Your task to perform on an android device: make emails show in primary in the gmail app Image 0: 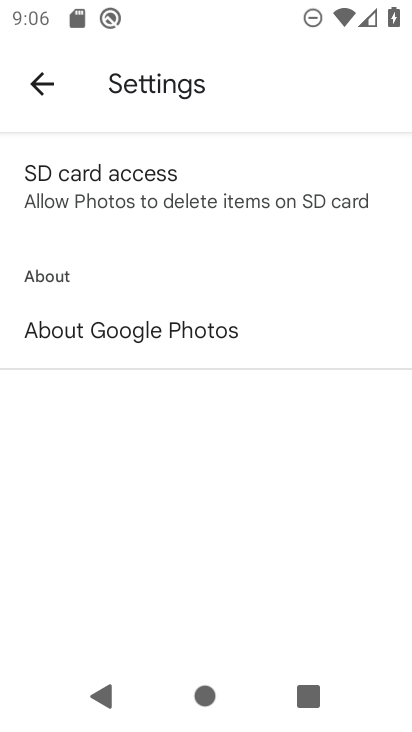
Step 0: press home button
Your task to perform on an android device: make emails show in primary in the gmail app Image 1: 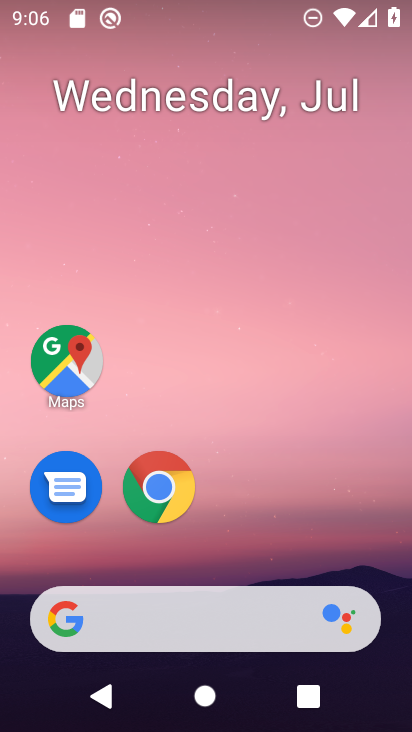
Step 1: drag from (375, 550) to (370, 117)
Your task to perform on an android device: make emails show in primary in the gmail app Image 2: 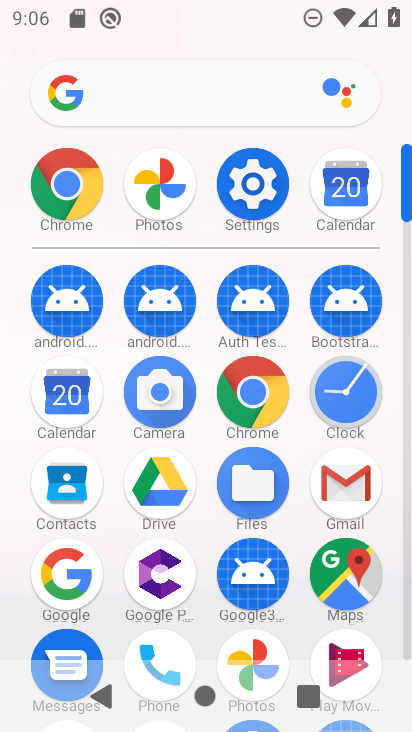
Step 2: click (345, 491)
Your task to perform on an android device: make emails show in primary in the gmail app Image 3: 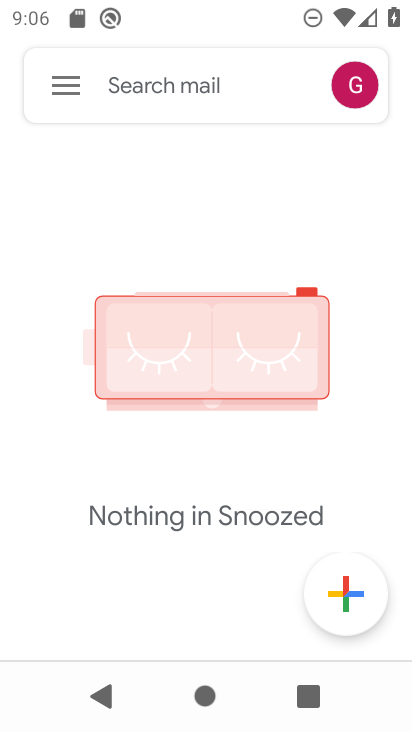
Step 3: click (68, 76)
Your task to perform on an android device: make emails show in primary in the gmail app Image 4: 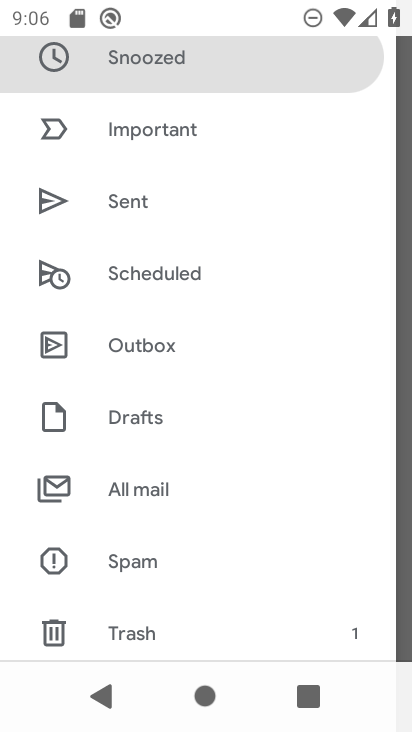
Step 4: drag from (265, 535) to (278, 443)
Your task to perform on an android device: make emails show in primary in the gmail app Image 5: 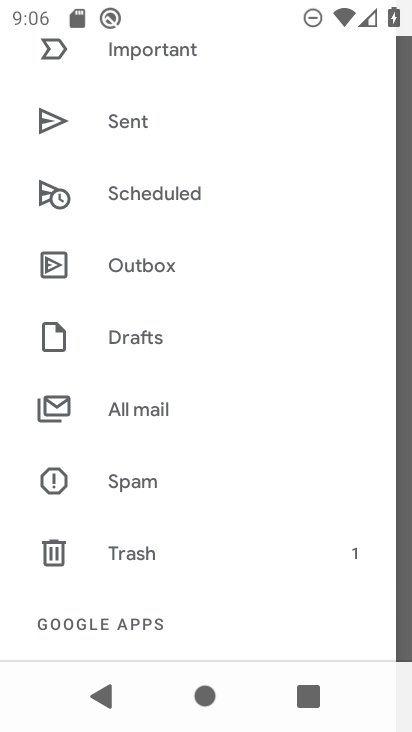
Step 5: drag from (278, 550) to (282, 259)
Your task to perform on an android device: make emails show in primary in the gmail app Image 6: 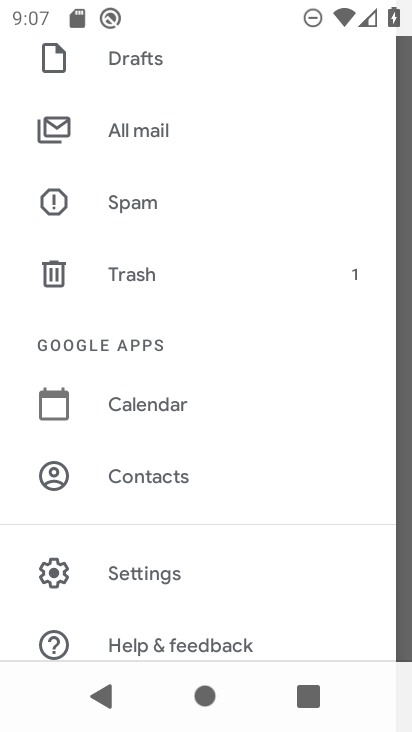
Step 6: click (177, 577)
Your task to perform on an android device: make emails show in primary in the gmail app Image 7: 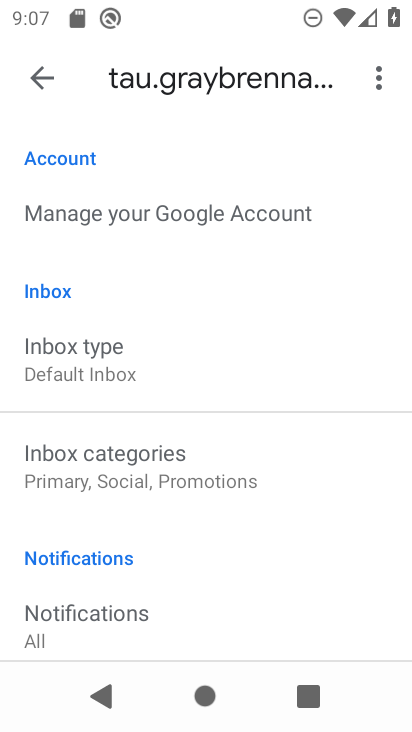
Step 7: click (210, 486)
Your task to perform on an android device: make emails show in primary in the gmail app Image 8: 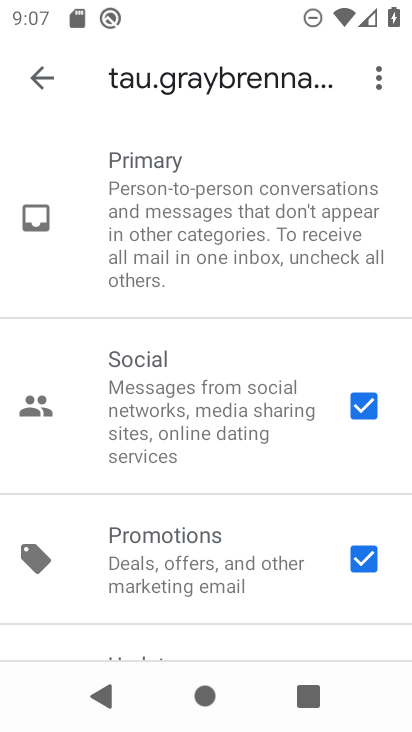
Step 8: click (365, 408)
Your task to perform on an android device: make emails show in primary in the gmail app Image 9: 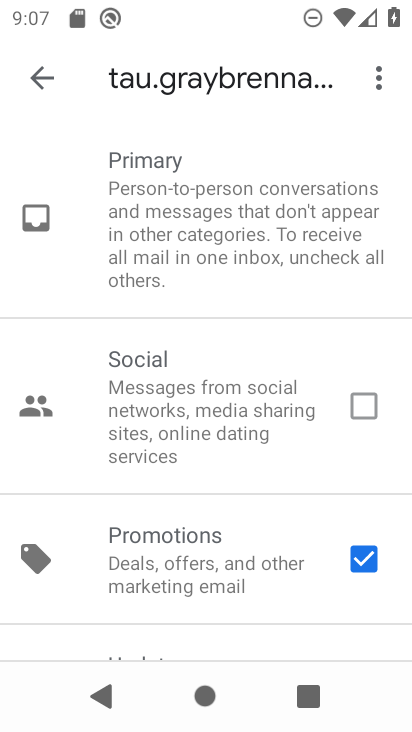
Step 9: click (364, 564)
Your task to perform on an android device: make emails show in primary in the gmail app Image 10: 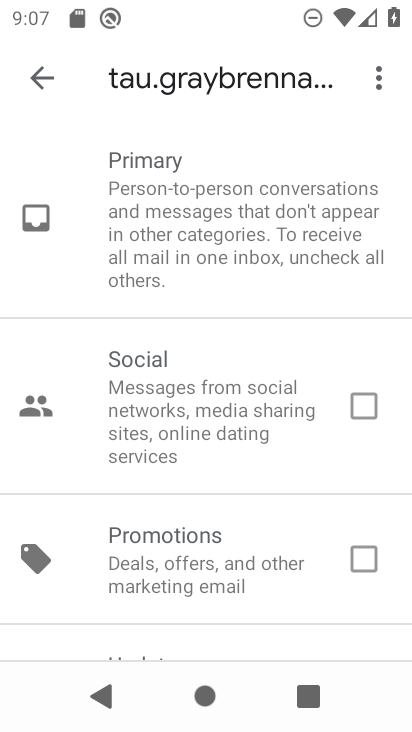
Step 10: task complete